Your task to perform on an android device: toggle translation in the chrome app Image 0: 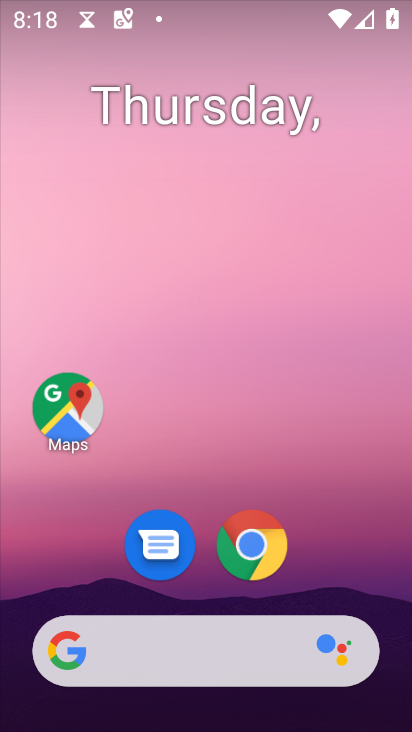
Step 0: click (253, 546)
Your task to perform on an android device: toggle translation in the chrome app Image 1: 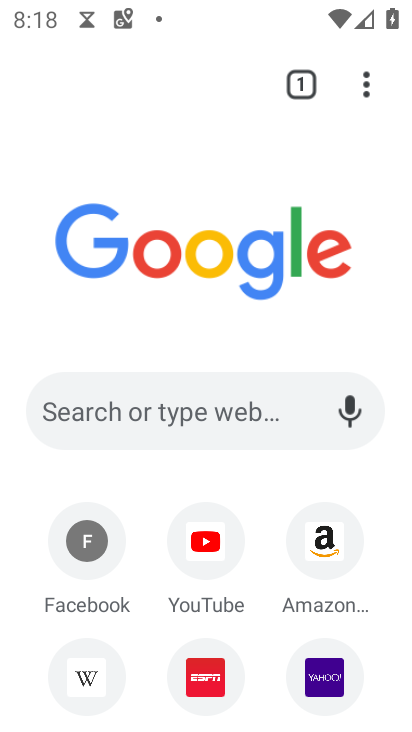
Step 1: click (366, 89)
Your task to perform on an android device: toggle translation in the chrome app Image 2: 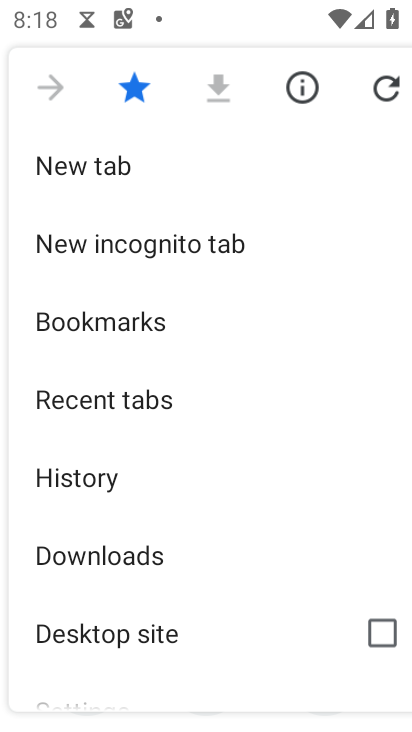
Step 2: drag from (137, 579) to (162, 514)
Your task to perform on an android device: toggle translation in the chrome app Image 3: 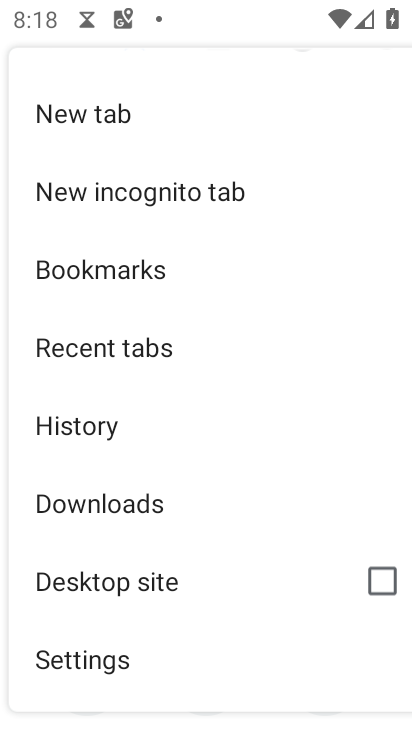
Step 3: drag from (129, 606) to (172, 527)
Your task to perform on an android device: toggle translation in the chrome app Image 4: 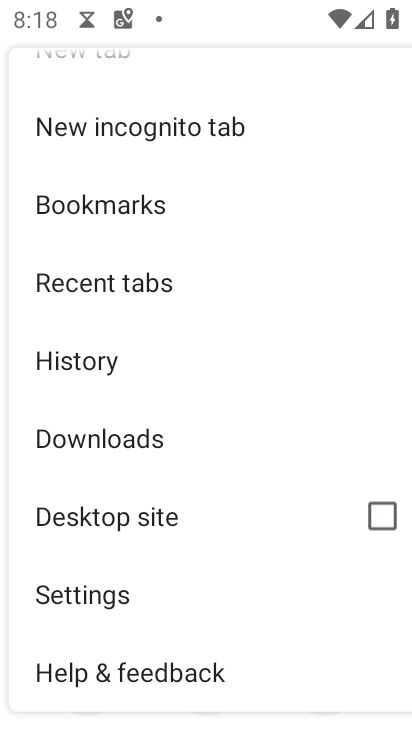
Step 4: drag from (103, 649) to (204, 539)
Your task to perform on an android device: toggle translation in the chrome app Image 5: 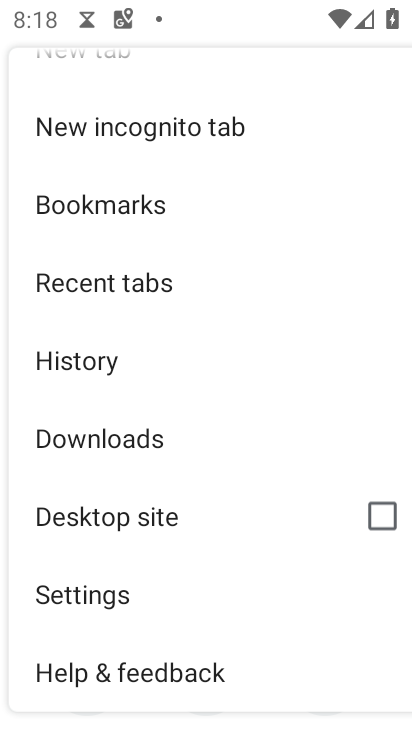
Step 5: click (110, 580)
Your task to perform on an android device: toggle translation in the chrome app Image 6: 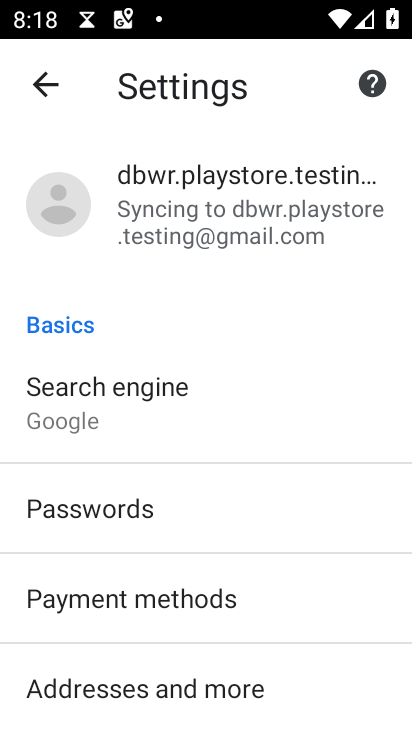
Step 6: drag from (144, 621) to (216, 517)
Your task to perform on an android device: toggle translation in the chrome app Image 7: 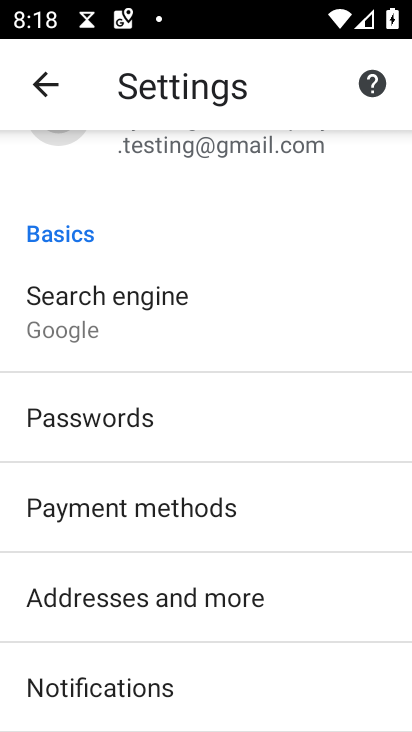
Step 7: drag from (163, 620) to (278, 492)
Your task to perform on an android device: toggle translation in the chrome app Image 8: 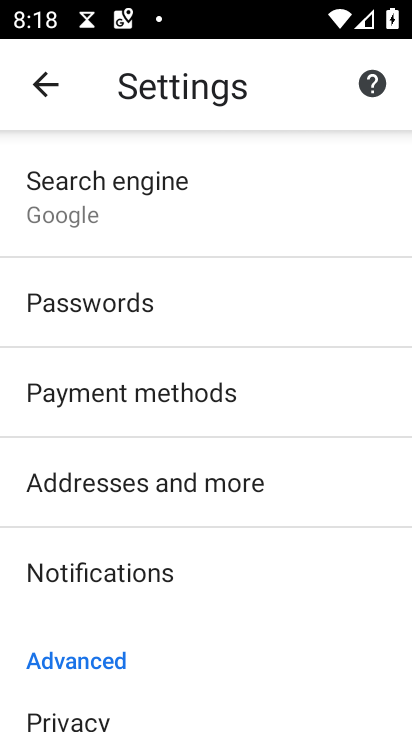
Step 8: drag from (138, 624) to (247, 489)
Your task to perform on an android device: toggle translation in the chrome app Image 9: 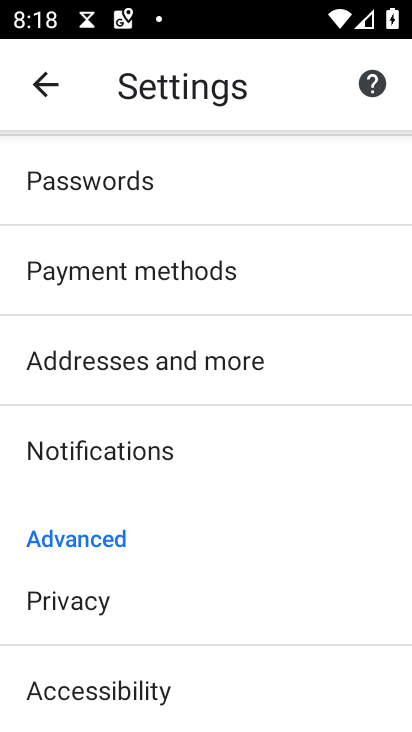
Step 9: drag from (167, 605) to (258, 485)
Your task to perform on an android device: toggle translation in the chrome app Image 10: 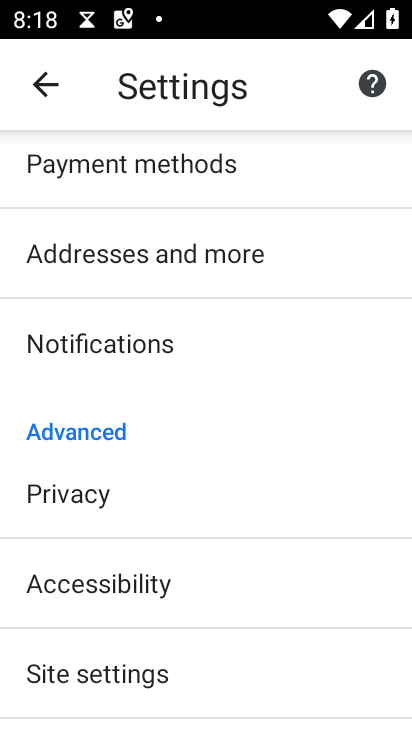
Step 10: drag from (156, 622) to (195, 513)
Your task to perform on an android device: toggle translation in the chrome app Image 11: 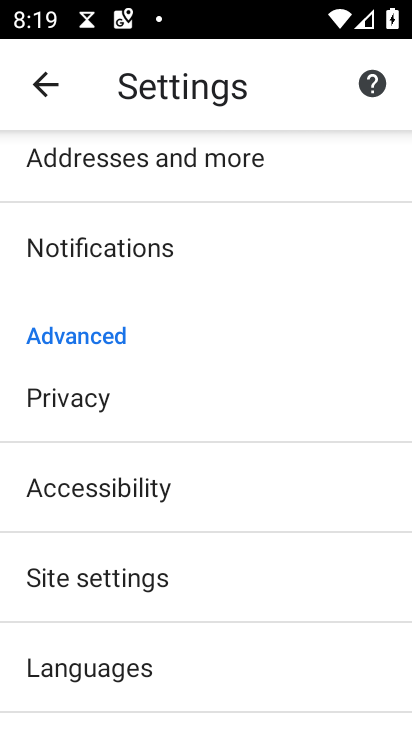
Step 11: click (119, 666)
Your task to perform on an android device: toggle translation in the chrome app Image 12: 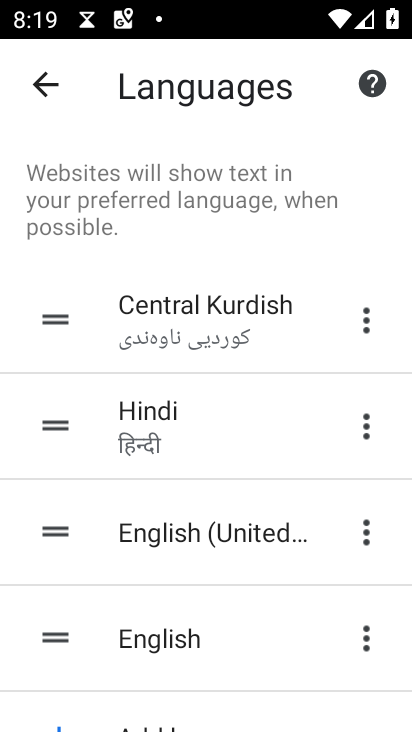
Step 12: drag from (249, 661) to (293, 485)
Your task to perform on an android device: toggle translation in the chrome app Image 13: 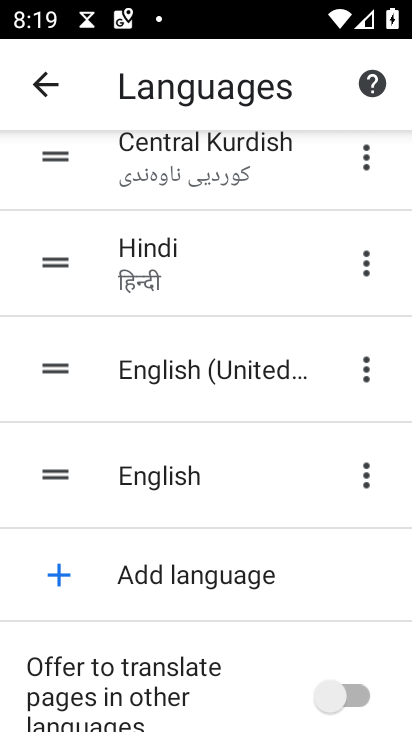
Step 13: drag from (220, 628) to (314, 467)
Your task to perform on an android device: toggle translation in the chrome app Image 14: 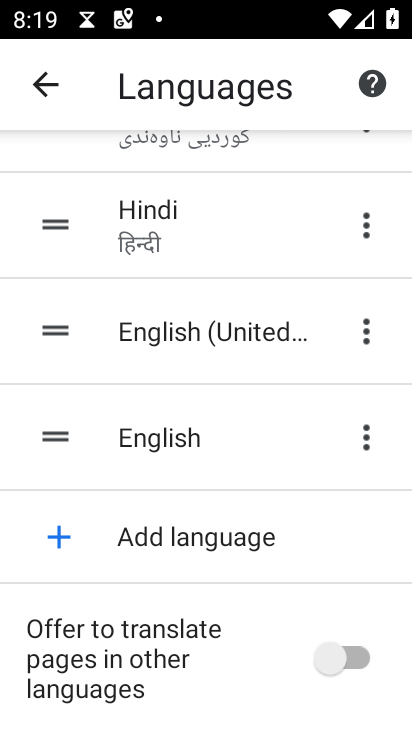
Step 14: click (336, 648)
Your task to perform on an android device: toggle translation in the chrome app Image 15: 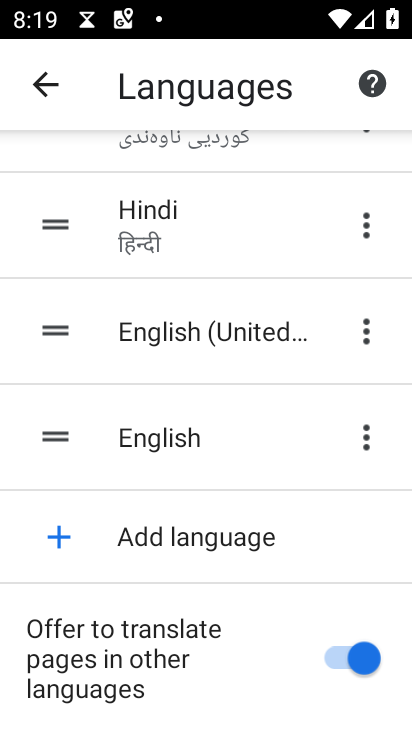
Step 15: task complete